Your task to perform on an android device: Toggle the flashlight Image 0: 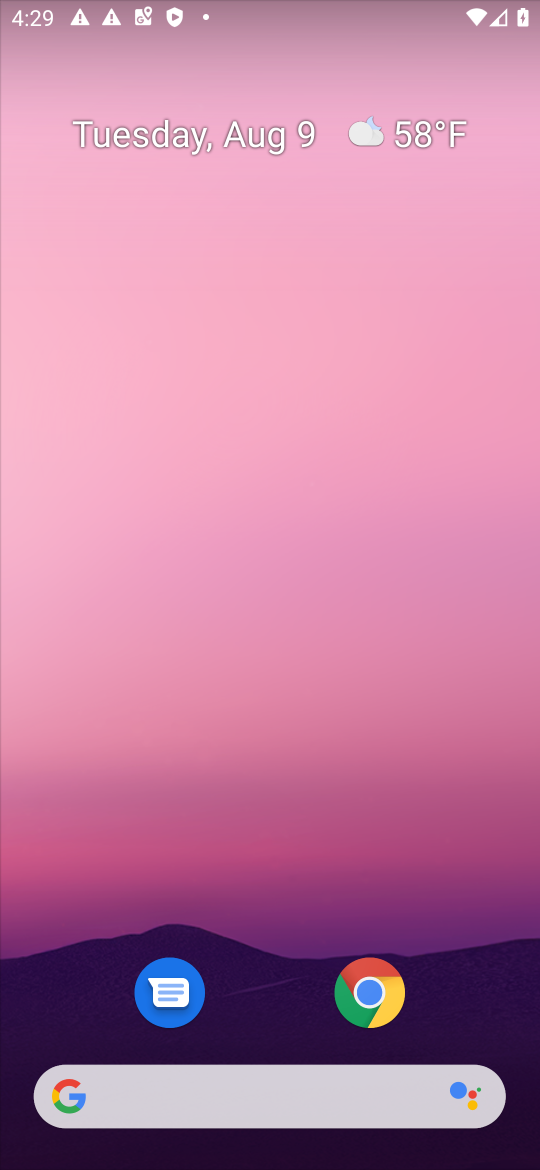
Step 0: task impossible